Your task to perform on an android device: change the clock display to digital Image 0: 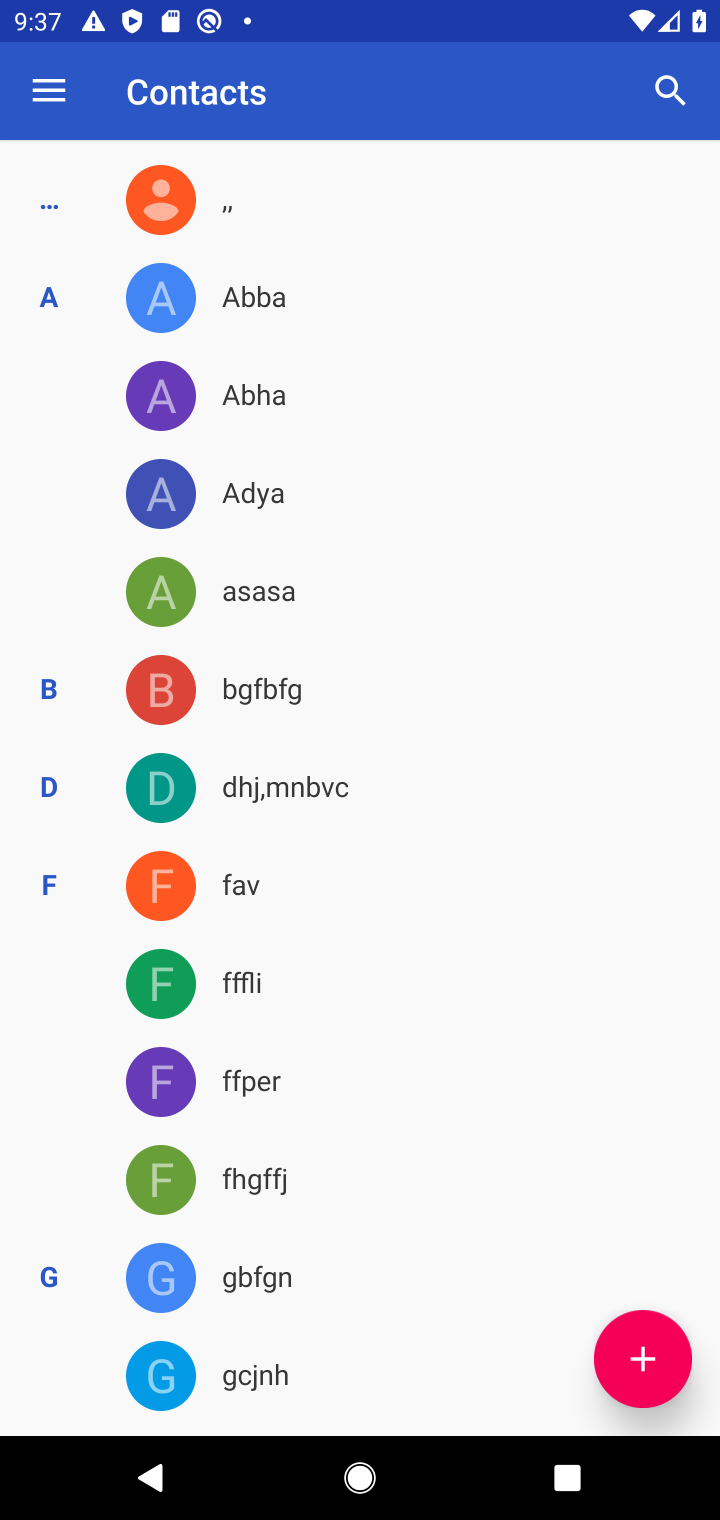
Step 0: press home button
Your task to perform on an android device: change the clock display to digital Image 1: 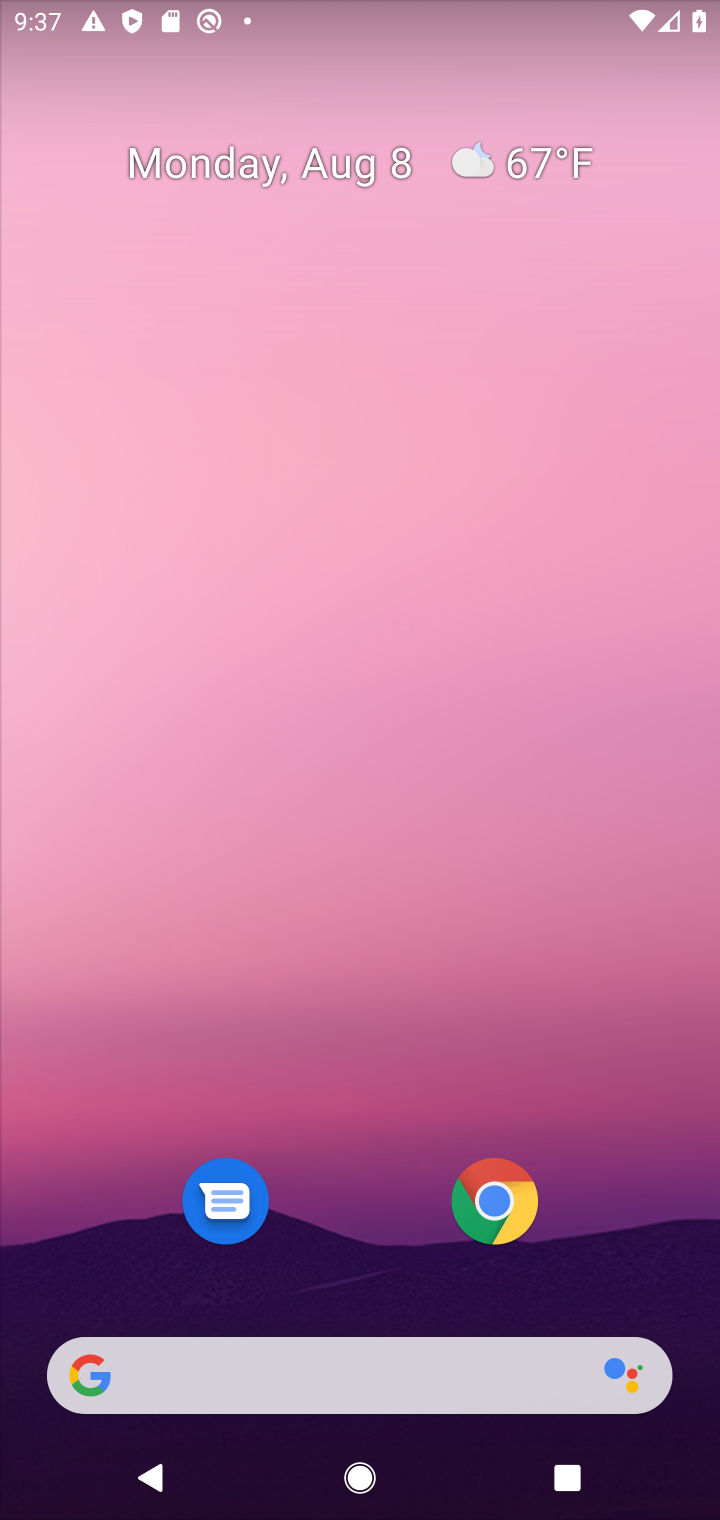
Step 1: drag from (643, 1158) to (628, 434)
Your task to perform on an android device: change the clock display to digital Image 2: 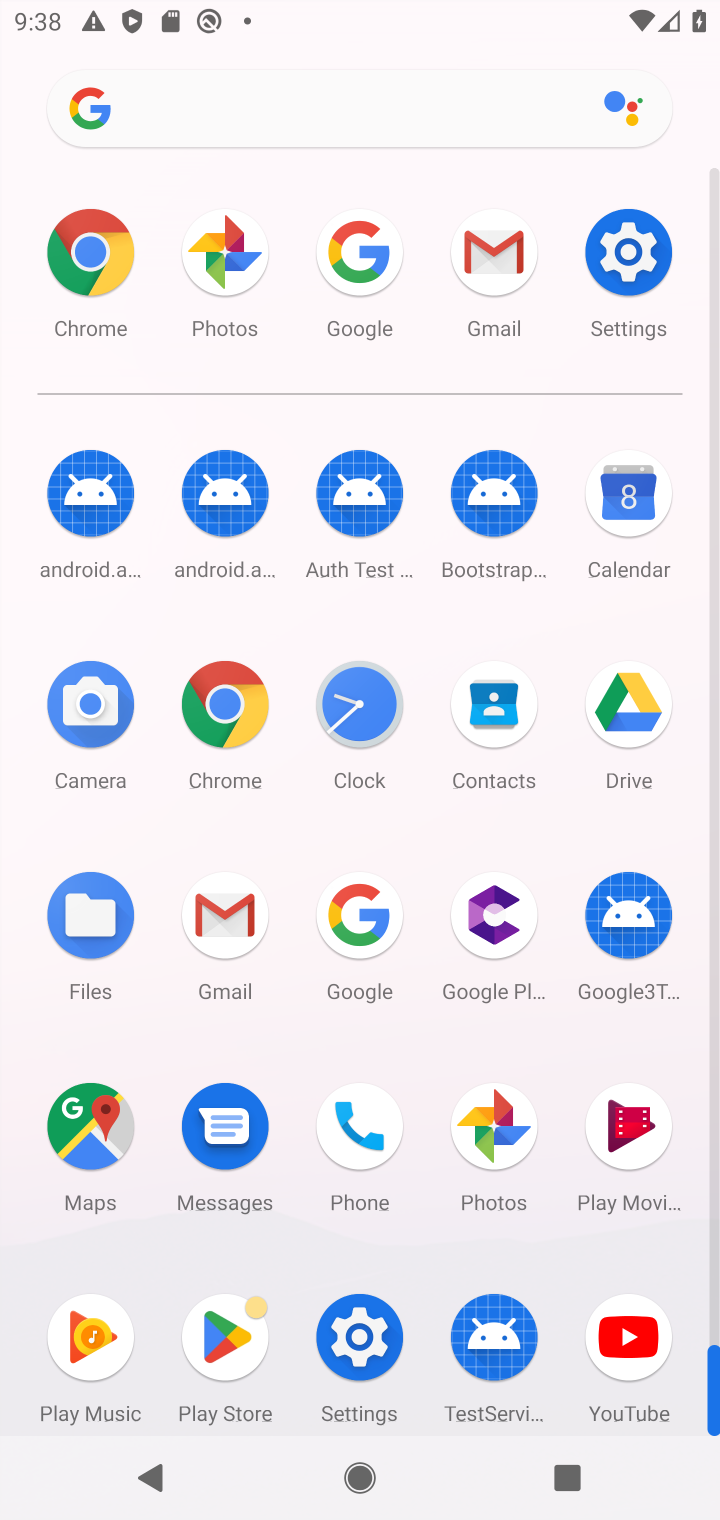
Step 2: click (341, 724)
Your task to perform on an android device: change the clock display to digital Image 3: 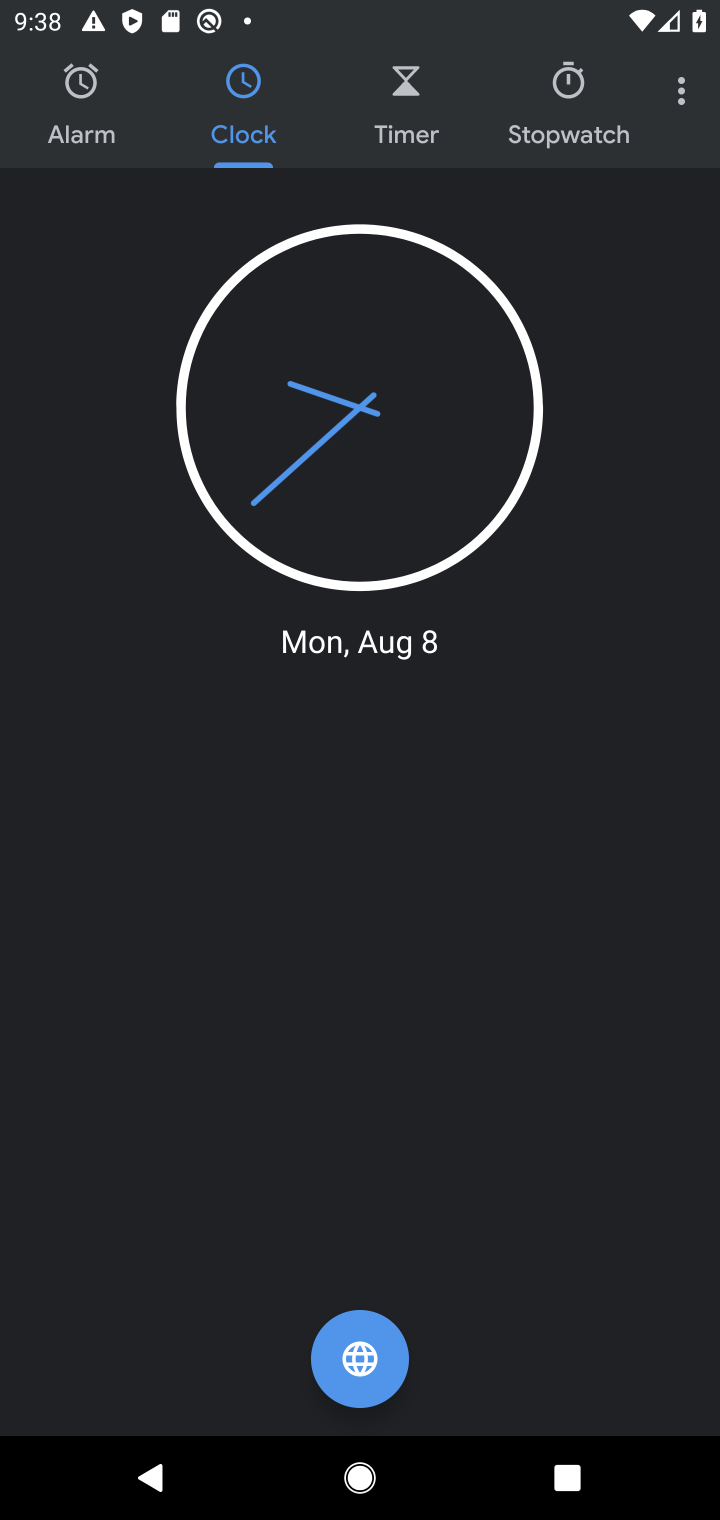
Step 3: click (687, 91)
Your task to perform on an android device: change the clock display to digital Image 4: 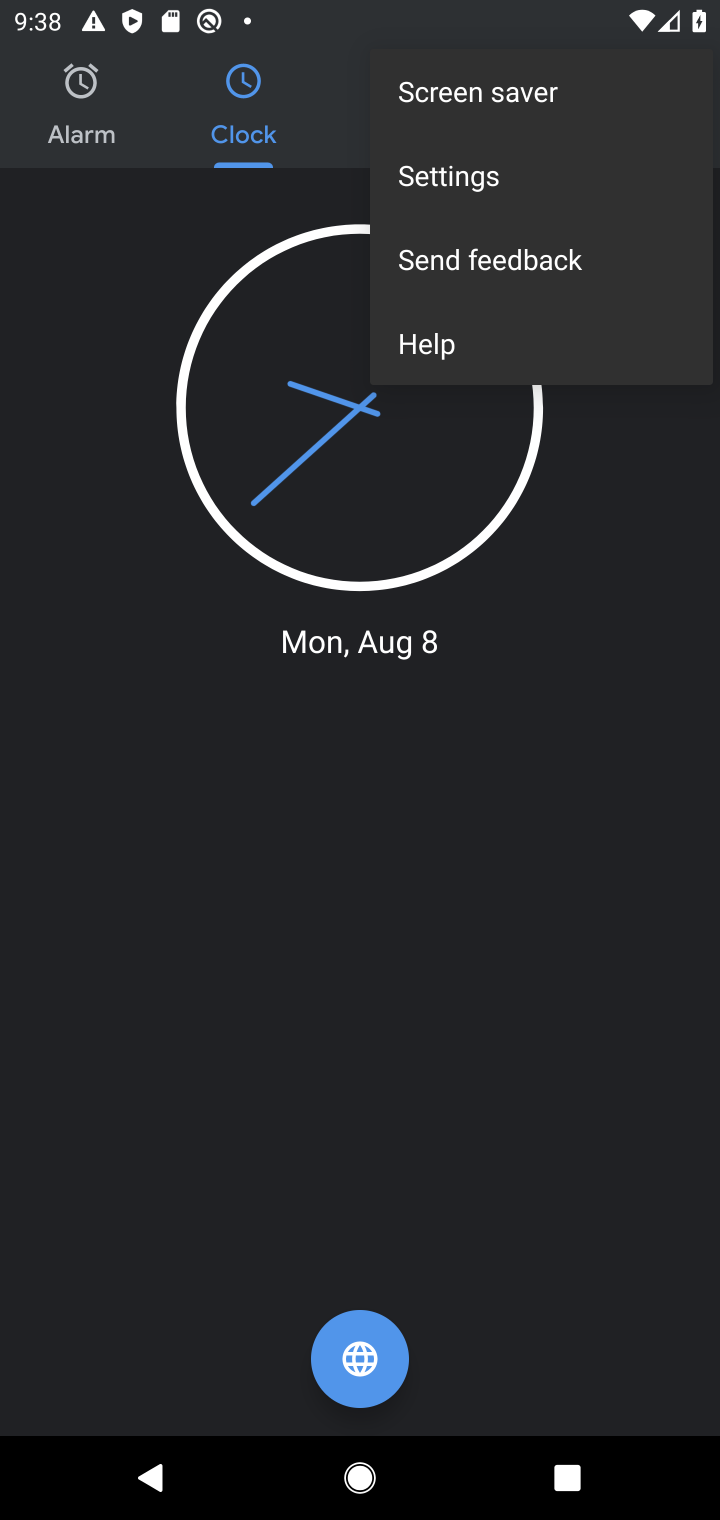
Step 4: click (492, 180)
Your task to perform on an android device: change the clock display to digital Image 5: 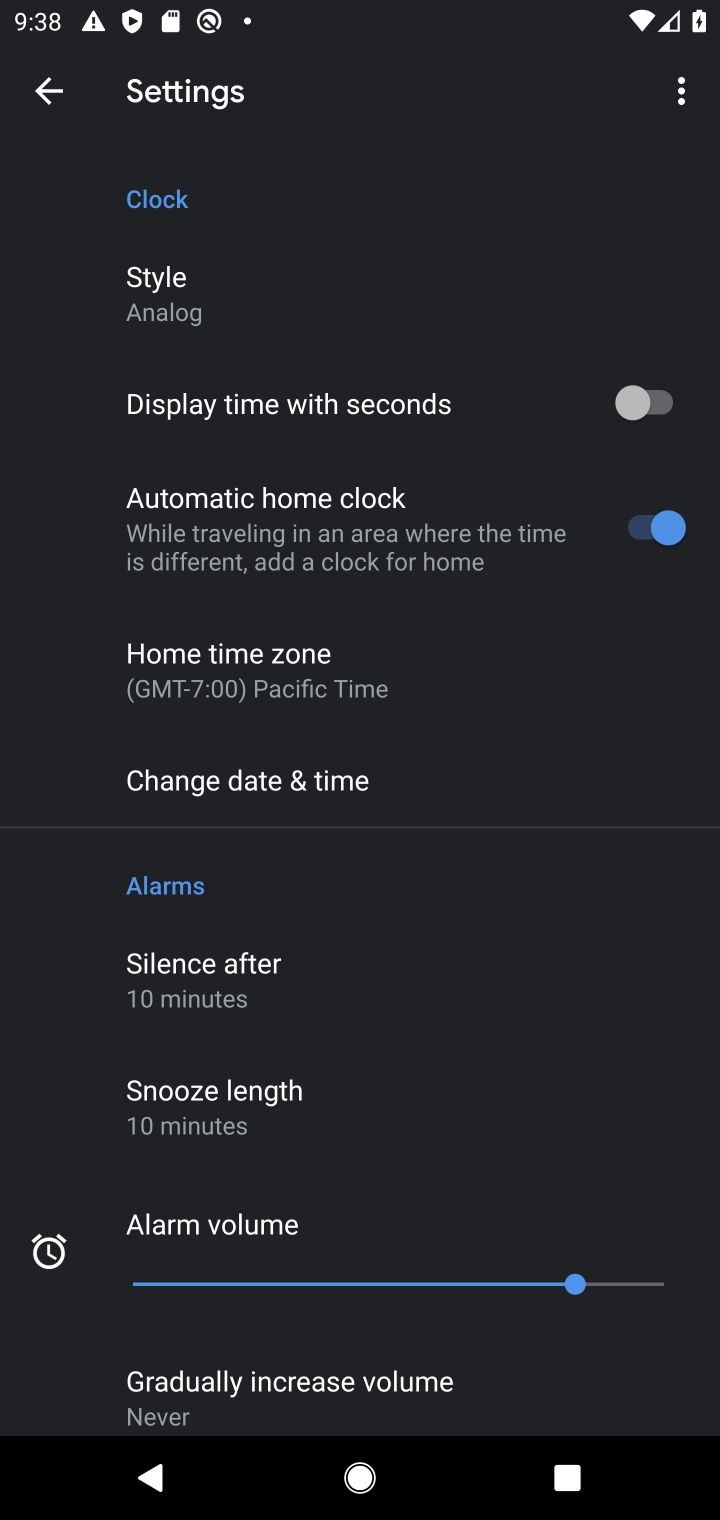
Step 5: click (184, 283)
Your task to perform on an android device: change the clock display to digital Image 6: 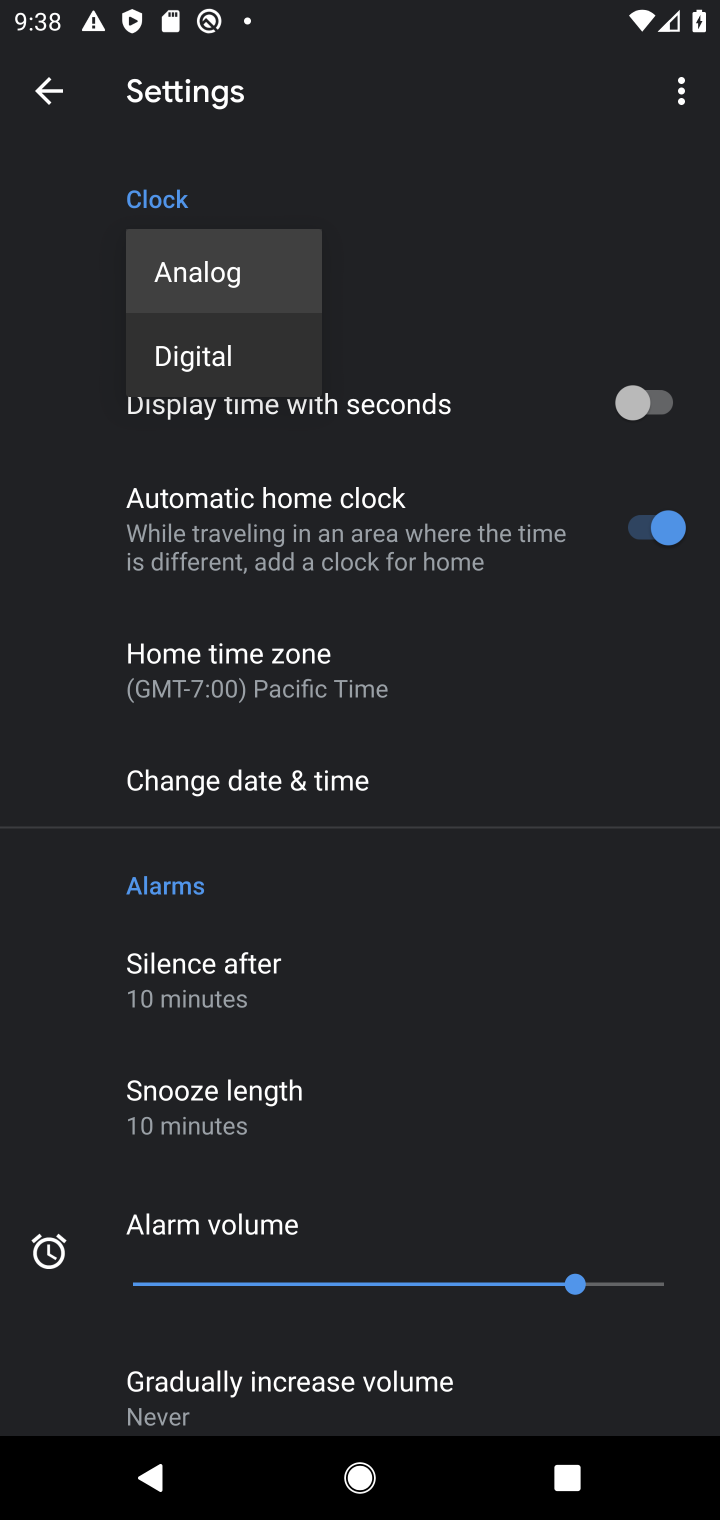
Step 6: click (207, 368)
Your task to perform on an android device: change the clock display to digital Image 7: 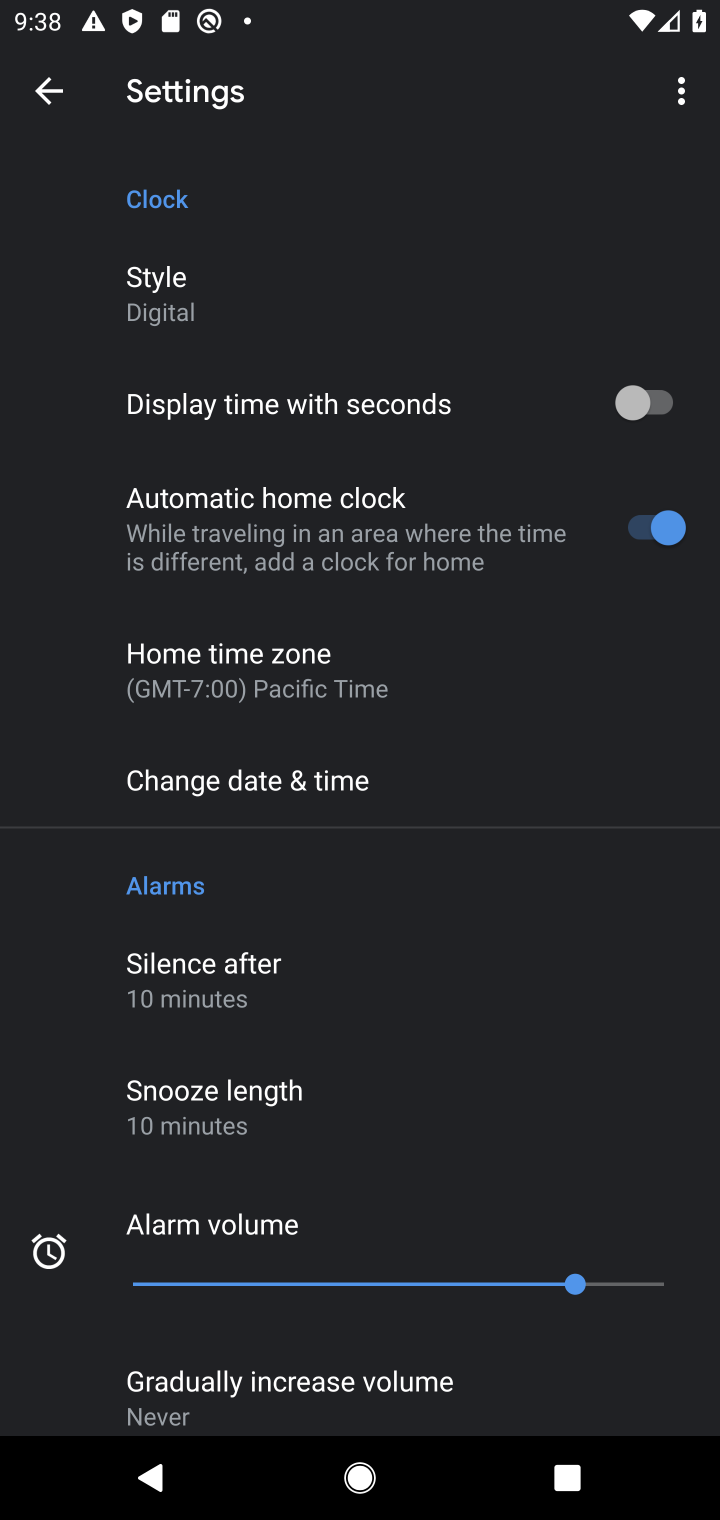
Step 7: task complete